Your task to perform on an android device: Open maps Image 0: 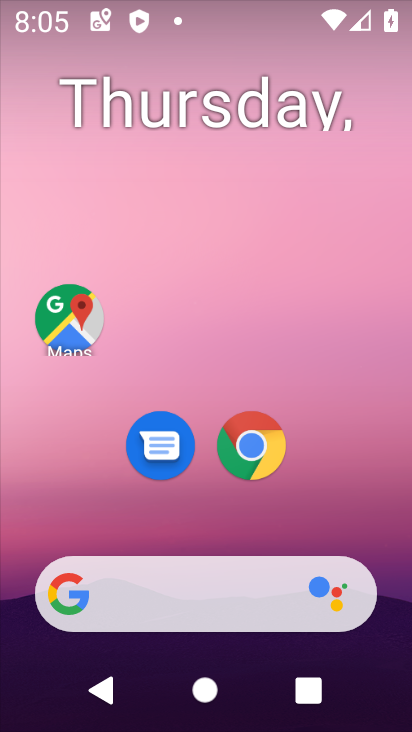
Step 0: click (305, 79)
Your task to perform on an android device: Open maps Image 1: 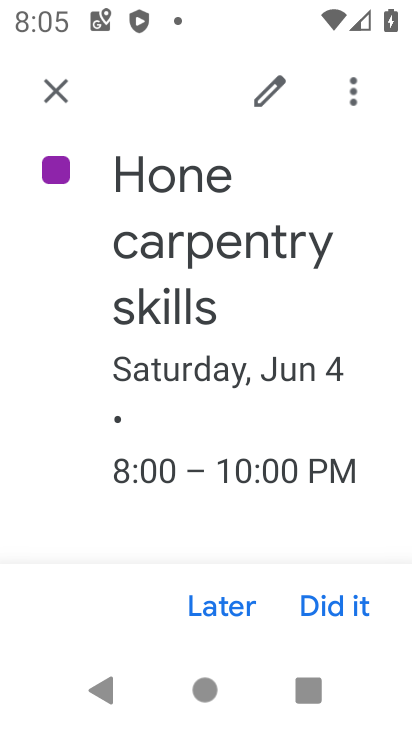
Step 1: press home button
Your task to perform on an android device: Open maps Image 2: 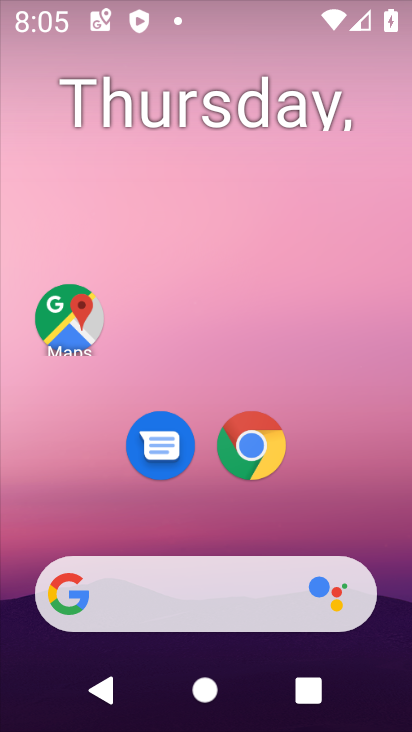
Step 2: drag from (400, 536) to (300, 117)
Your task to perform on an android device: Open maps Image 3: 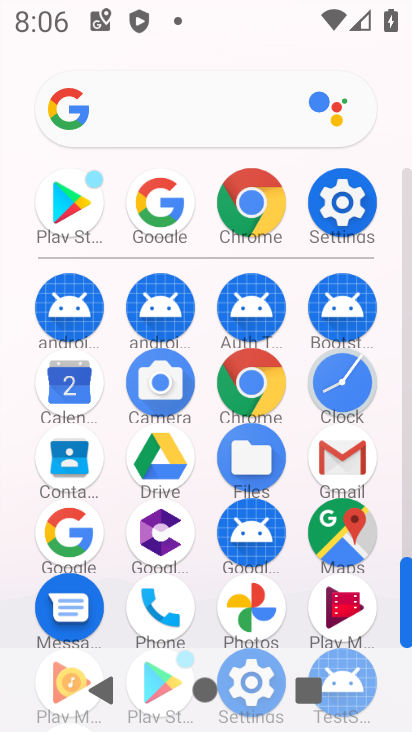
Step 3: click (337, 509)
Your task to perform on an android device: Open maps Image 4: 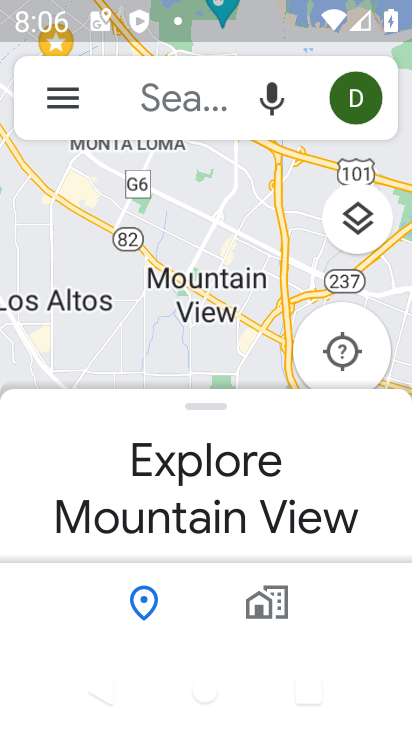
Step 4: task complete